Your task to perform on an android device: Go to display settings Image 0: 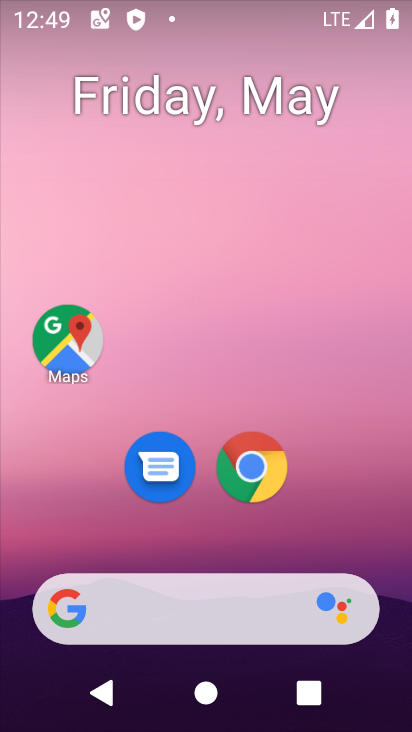
Step 0: drag from (318, 507) to (271, 48)
Your task to perform on an android device: Go to display settings Image 1: 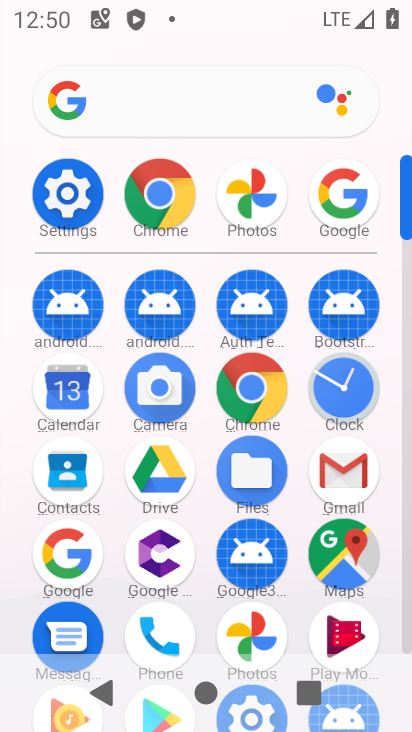
Step 1: click (68, 194)
Your task to perform on an android device: Go to display settings Image 2: 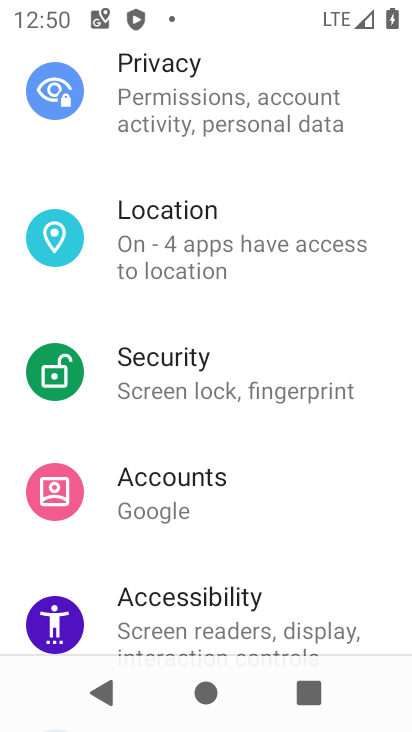
Step 2: drag from (242, 199) to (237, 375)
Your task to perform on an android device: Go to display settings Image 3: 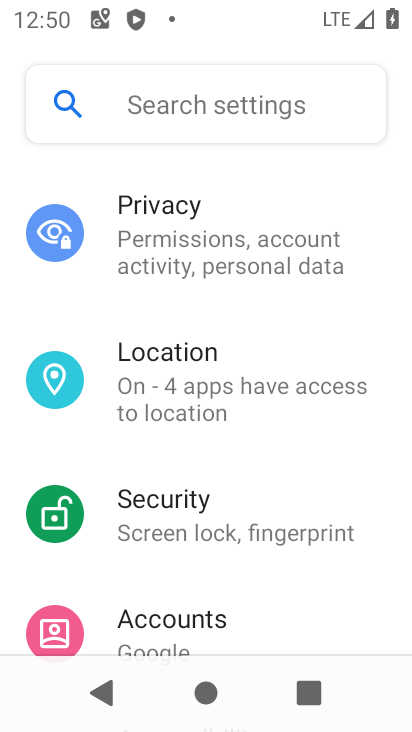
Step 3: drag from (245, 196) to (275, 322)
Your task to perform on an android device: Go to display settings Image 4: 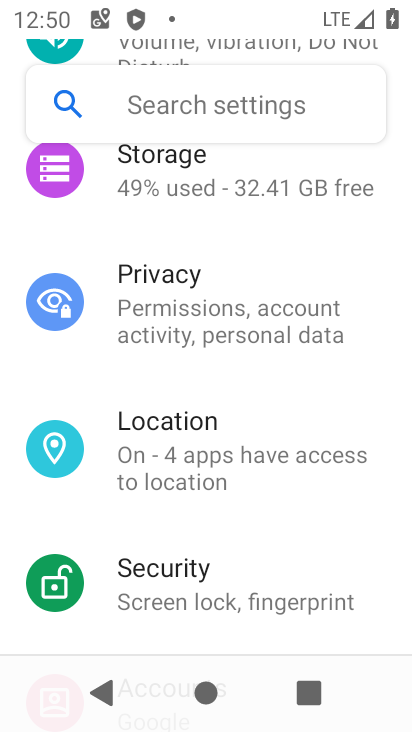
Step 4: drag from (224, 263) to (265, 408)
Your task to perform on an android device: Go to display settings Image 5: 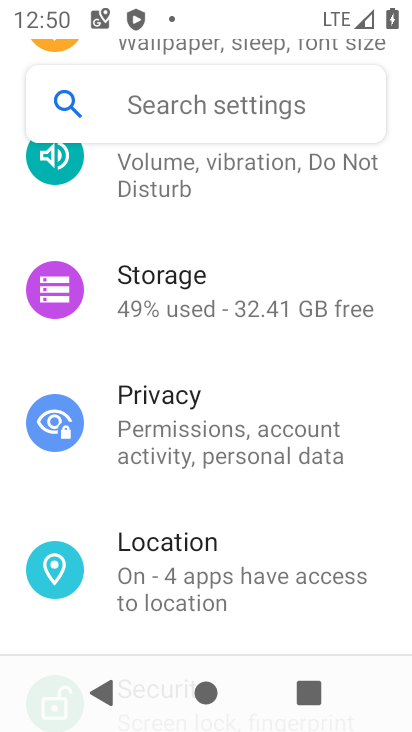
Step 5: drag from (237, 244) to (282, 428)
Your task to perform on an android device: Go to display settings Image 6: 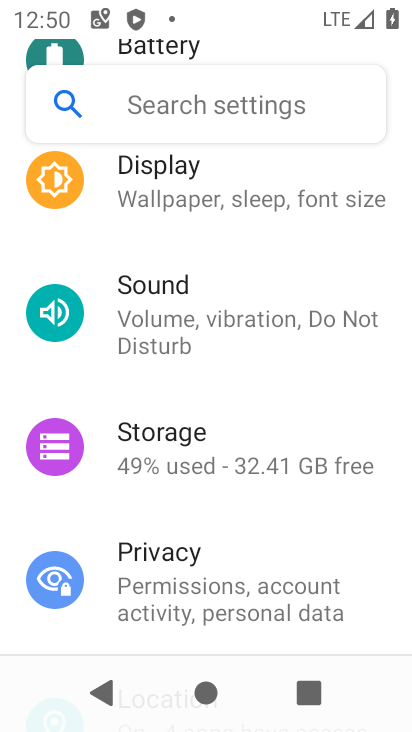
Step 6: drag from (246, 248) to (261, 407)
Your task to perform on an android device: Go to display settings Image 7: 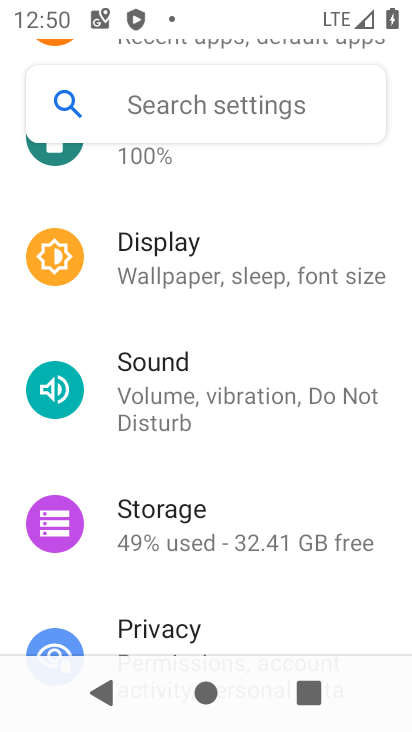
Step 7: click (210, 277)
Your task to perform on an android device: Go to display settings Image 8: 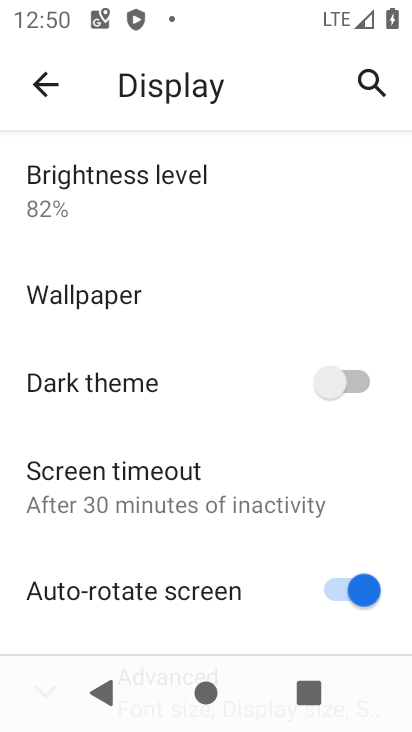
Step 8: task complete